Your task to perform on an android device: What's the weather? Image 0: 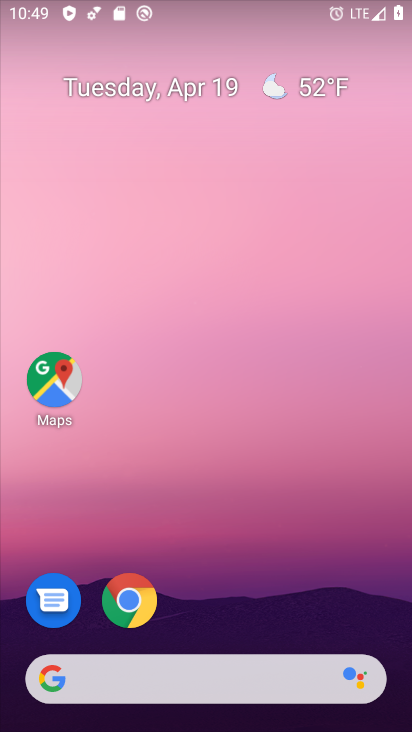
Step 0: drag from (211, 624) to (185, 97)
Your task to perform on an android device: What's the weather? Image 1: 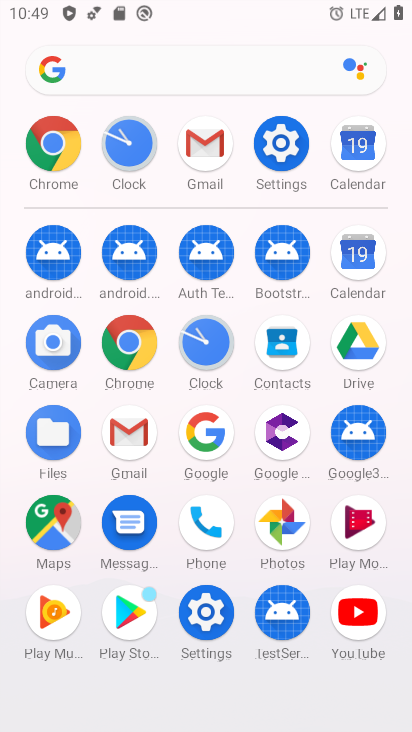
Step 1: click (197, 446)
Your task to perform on an android device: What's the weather? Image 2: 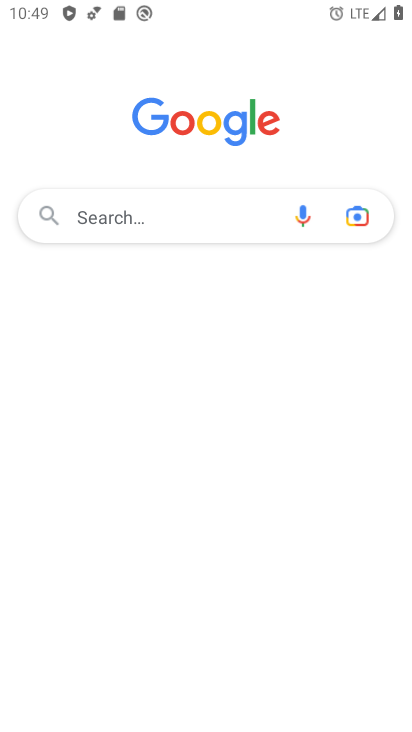
Step 2: click (158, 231)
Your task to perform on an android device: What's the weather? Image 3: 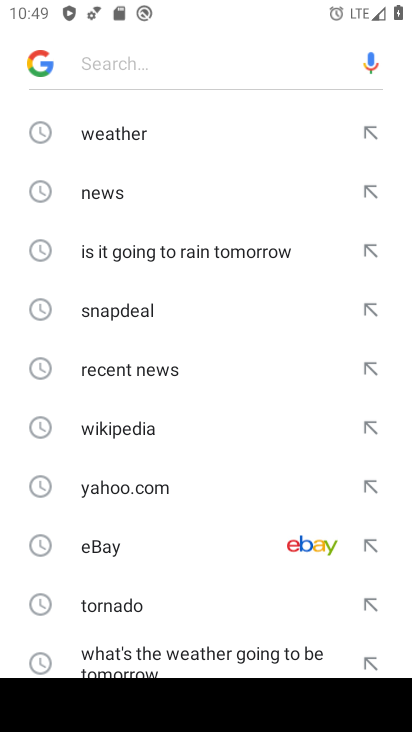
Step 3: click (133, 120)
Your task to perform on an android device: What's the weather? Image 4: 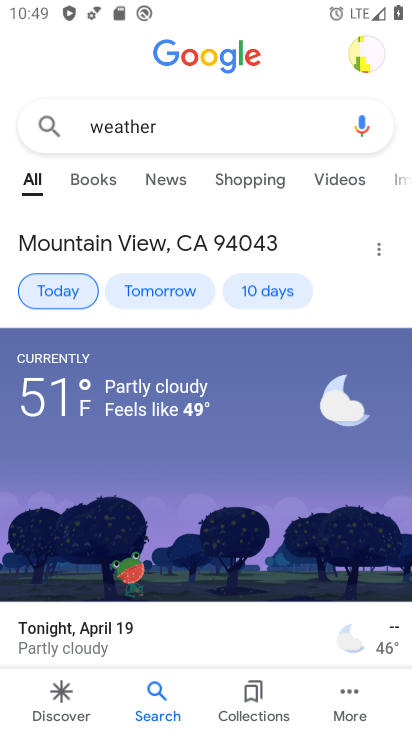
Step 4: task complete